Your task to perform on an android device: What's the weather today? Image 0: 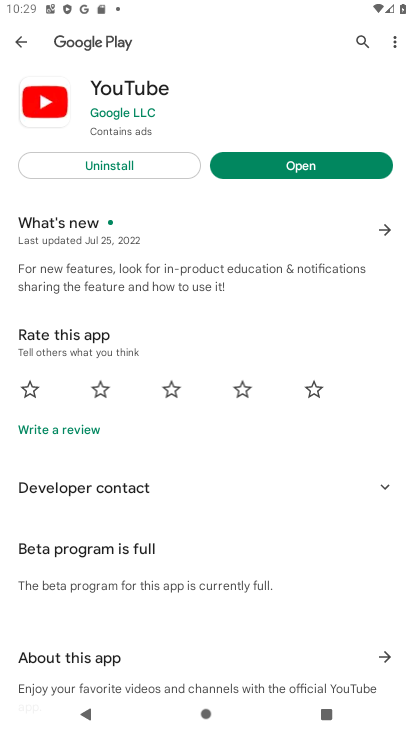
Step 0: press home button
Your task to perform on an android device: What's the weather today? Image 1: 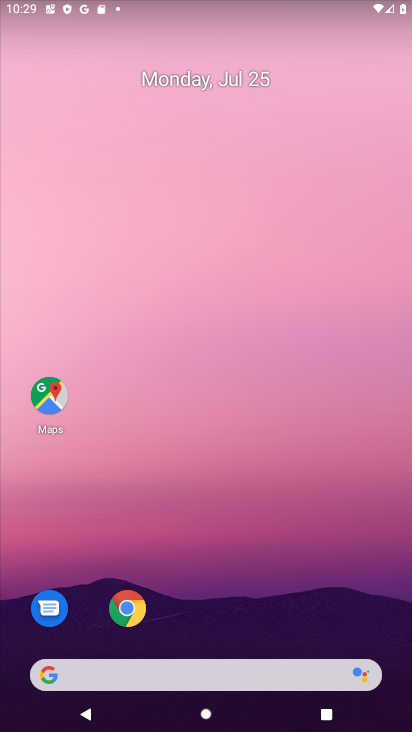
Step 1: drag from (223, 677) to (286, 67)
Your task to perform on an android device: What's the weather today? Image 2: 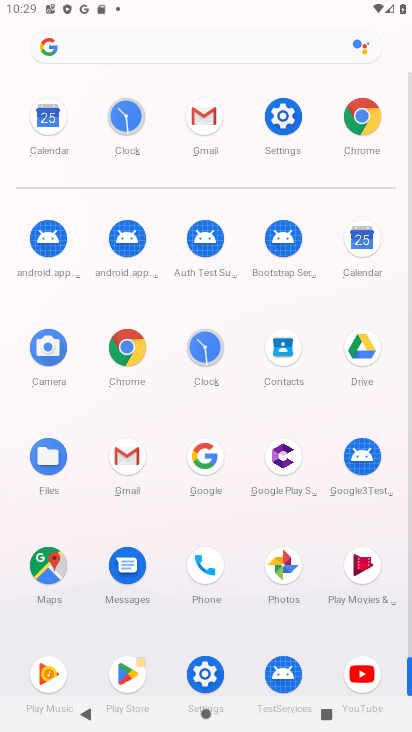
Step 2: click (199, 481)
Your task to perform on an android device: What's the weather today? Image 3: 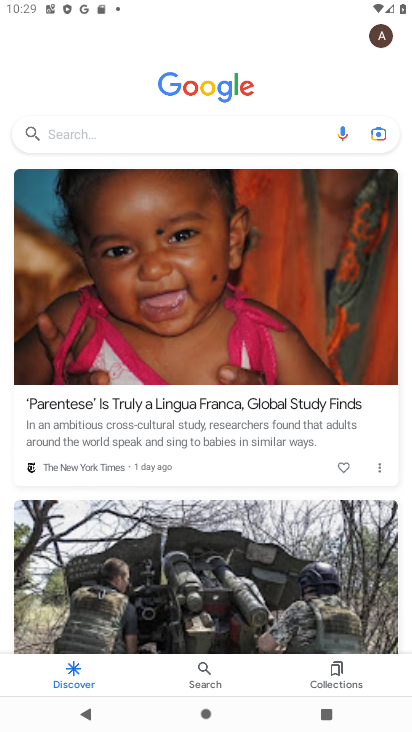
Step 3: click (151, 142)
Your task to perform on an android device: What's the weather today? Image 4: 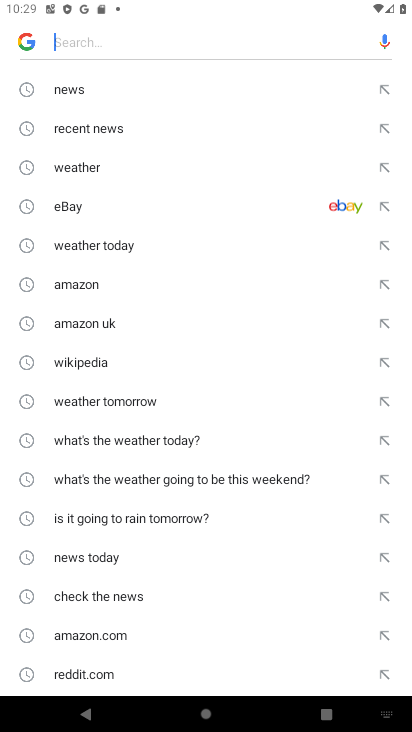
Step 4: click (100, 172)
Your task to perform on an android device: What's the weather today? Image 5: 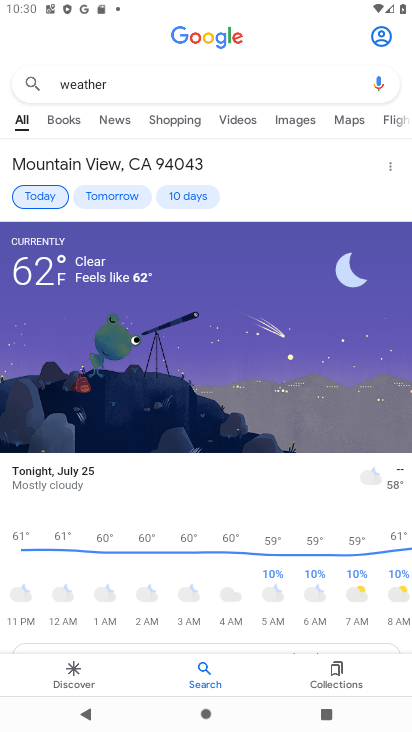
Step 5: task complete